Your task to perform on an android device: change the clock display to analog Image 0: 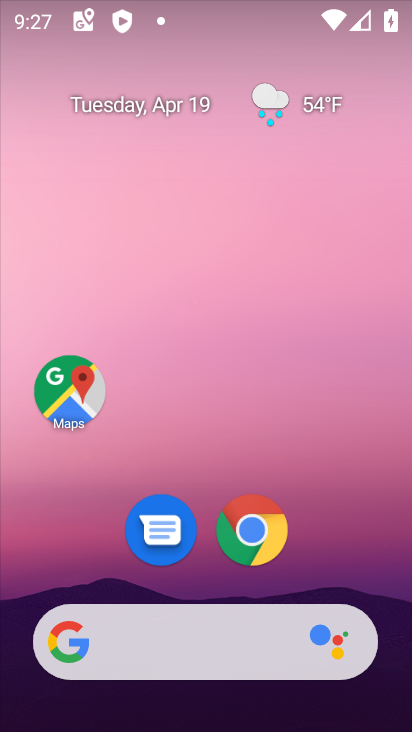
Step 0: drag from (327, 462) to (314, 96)
Your task to perform on an android device: change the clock display to analog Image 1: 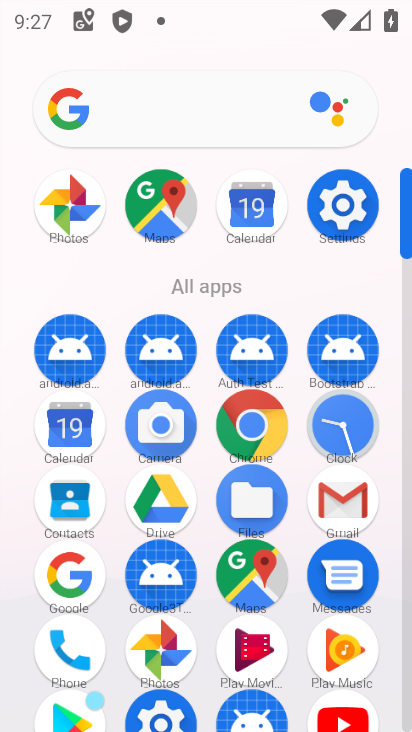
Step 1: click (336, 424)
Your task to perform on an android device: change the clock display to analog Image 2: 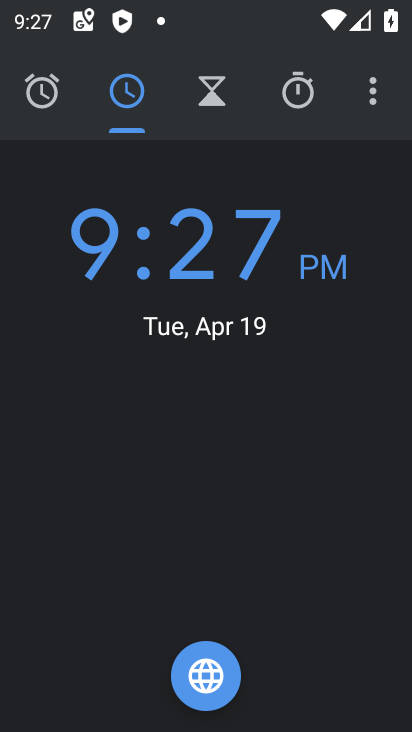
Step 2: click (371, 90)
Your task to perform on an android device: change the clock display to analog Image 3: 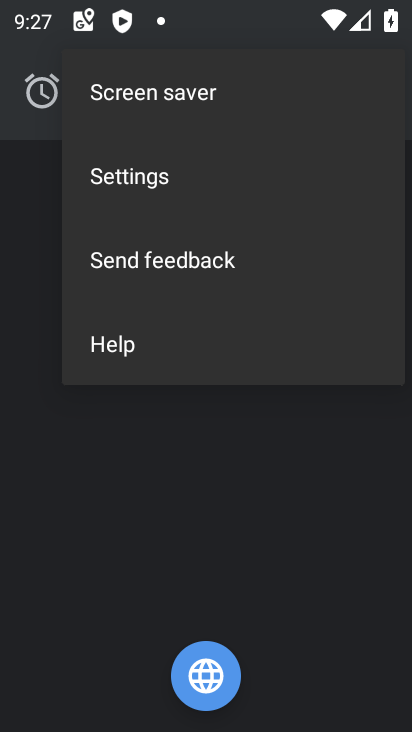
Step 3: click (235, 186)
Your task to perform on an android device: change the clock display to analog Image 4: 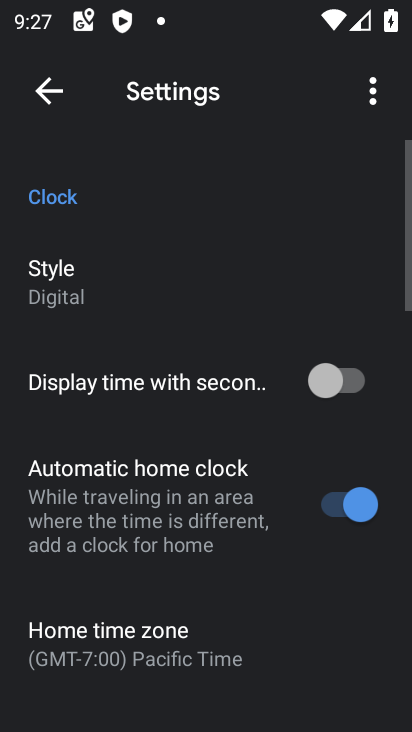
Step 4: click (143, 292)
Your task to perform on an android device: change the clock display to analog Image 5: 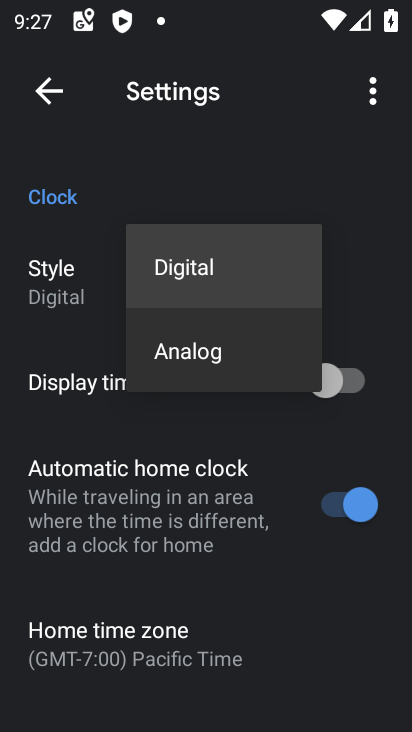
Step 5: click (194, 333)
Your task to perform on an android device: change the clock display to analog Image 6: 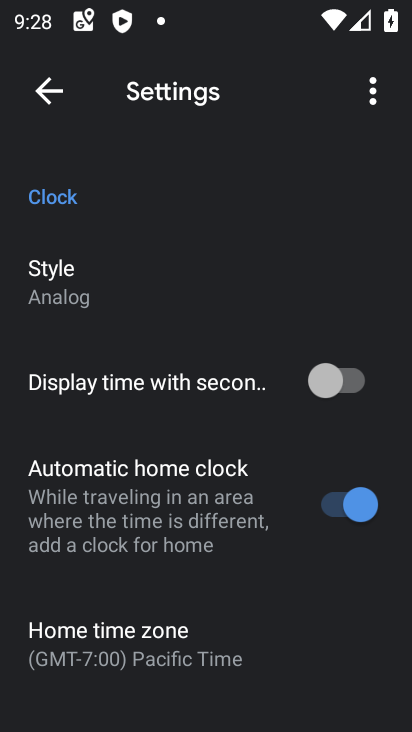
Step 6: task complete